Your task to perform on an android device: Open the web browser Image 0: 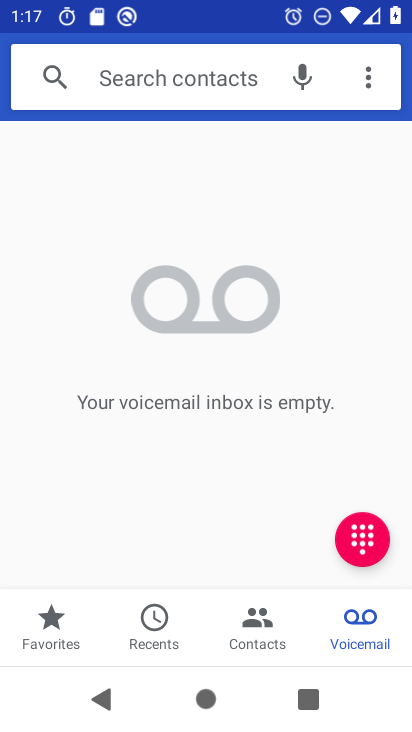
Step 0: press home button
Your task to perform on an android device: Open the web browser Image 1: 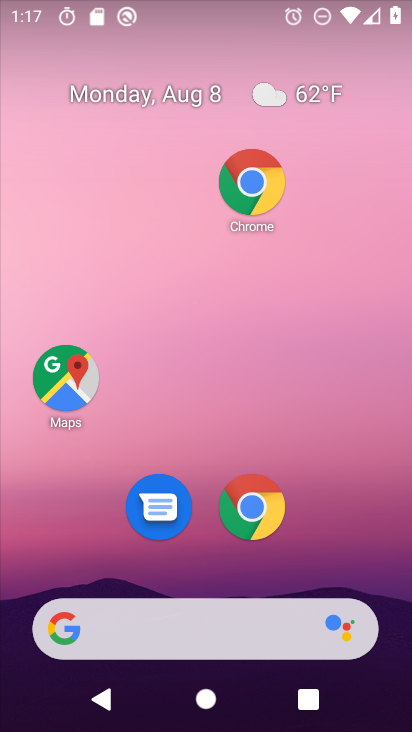
Step 1: click (248, 506)
Your task to perform on an android device: Open the web browser Image 2: 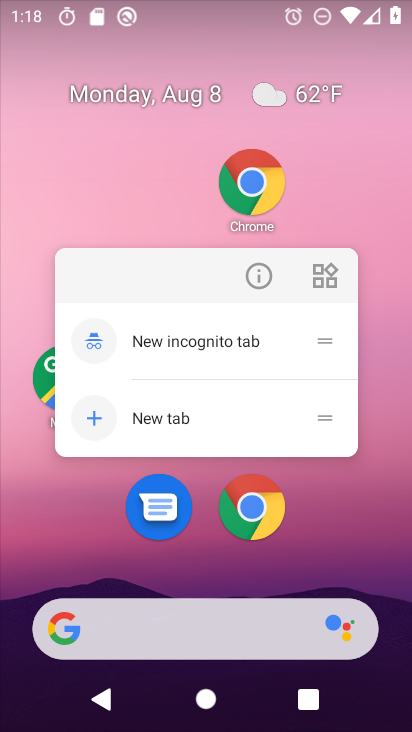
Step 2: click (247, 506)
Your task to perform on an android device: Open the web browser Image 3: 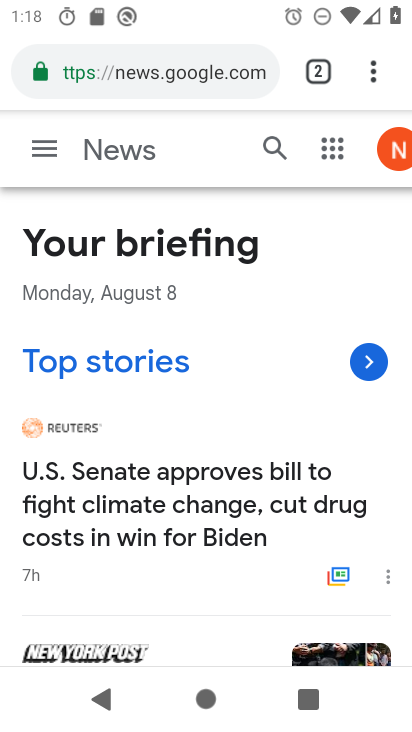
Step 3: task complete